Your task to perform on an android device: Open location settings Image 0: 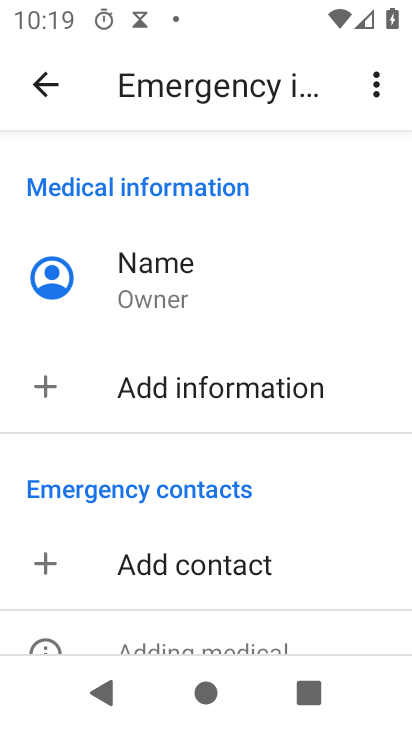
Step 0: press home button
Your task to perform on an android device: Open location settings Image 1: 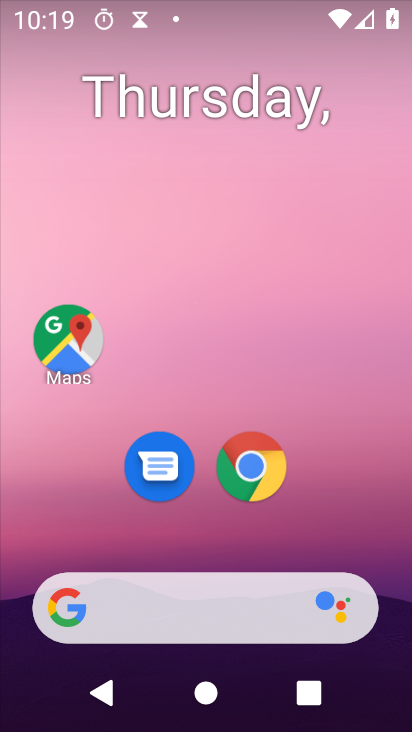
Step 1: drag from (145, 605) to (251, 122)
Your task to perform on an android device: Open location settings Image 2: 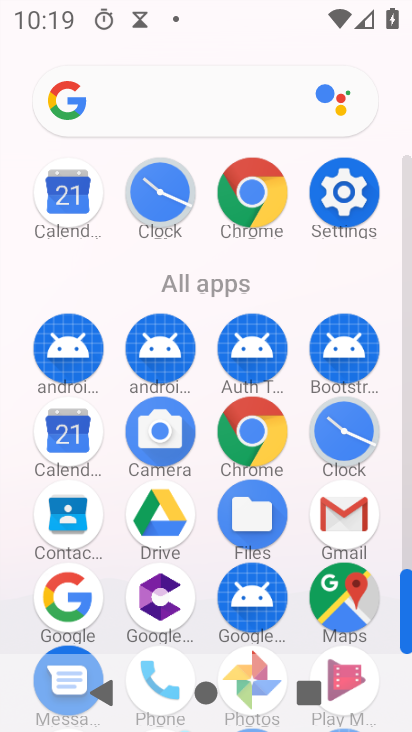
Step 2: click (339, 190)
Your task to perform on an android device: Open location settings Image 3: 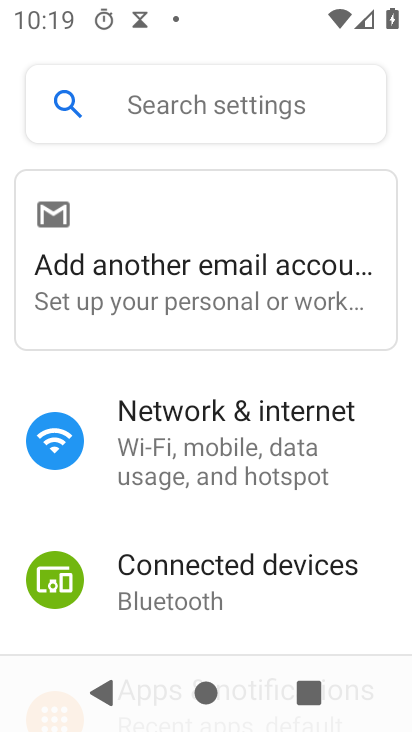
Step 3: drag from (179, 601) to (250, 221)
Your task to perform on an android device: Open location settings Image 4: 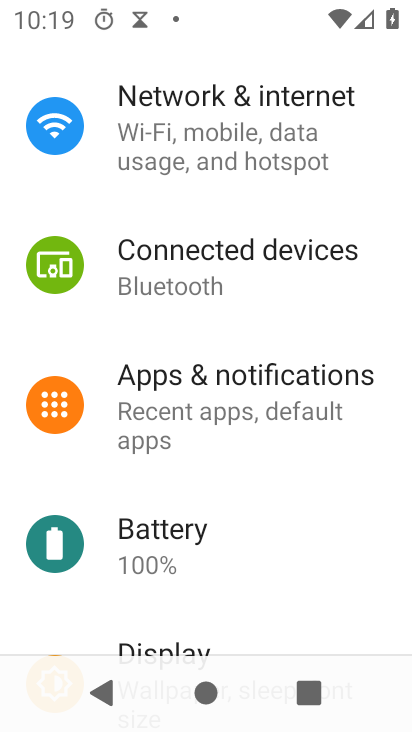
Step 4: drag from (204, 633) to (233, 190)
Your task to perform on an android device: Open location settings Image 5: 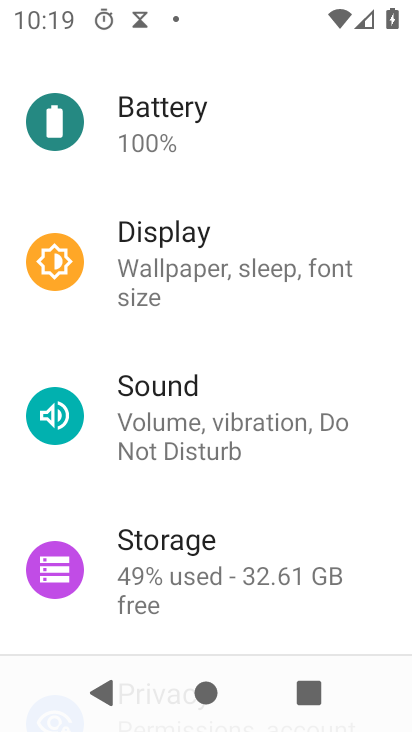
Step 5: drag from (226, 605) to (223, 192)
Your task to perform on an android device: Open location settings Image 6: 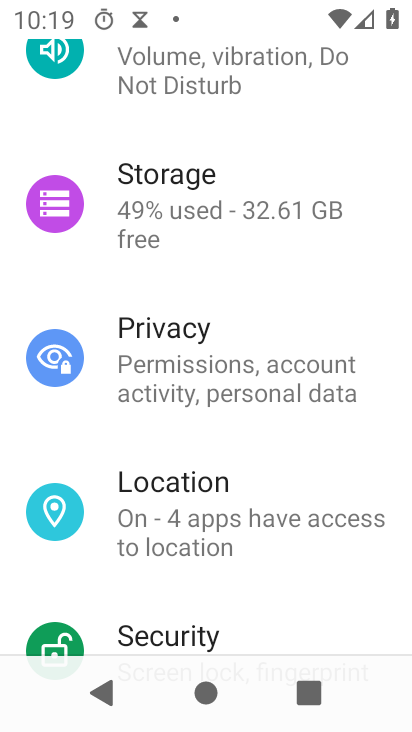
Step 6: click (206, 523)
Your task to perform on an android device: Open location settings Image 7: 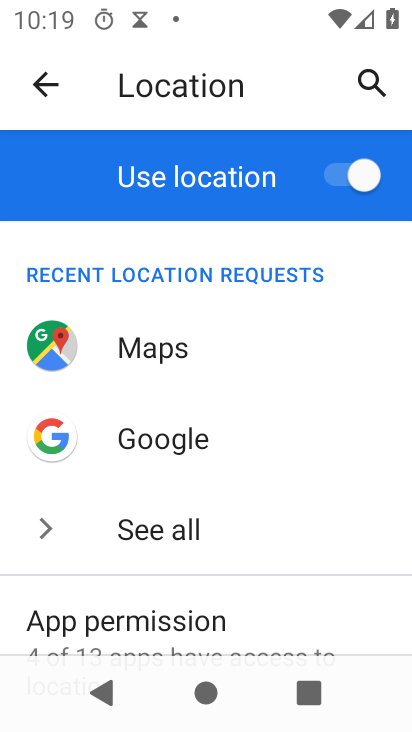
Step 7: task complete